Your task to perform on an android device: Do I have any events this weekend? Image 0: 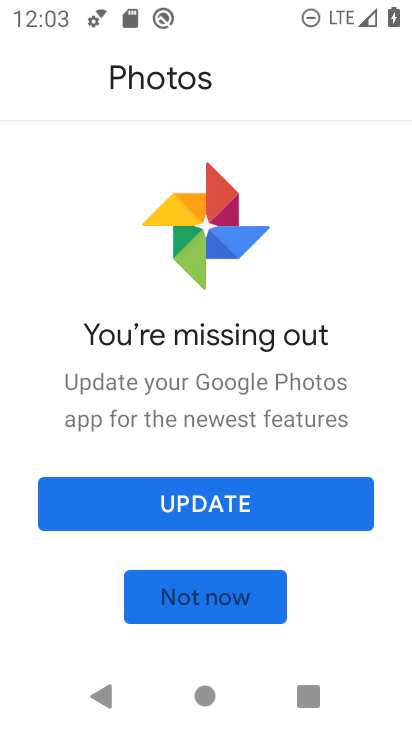
Step 0: press home button
Your task to perform on an android device: Do I have any events this weekend? Image 1: 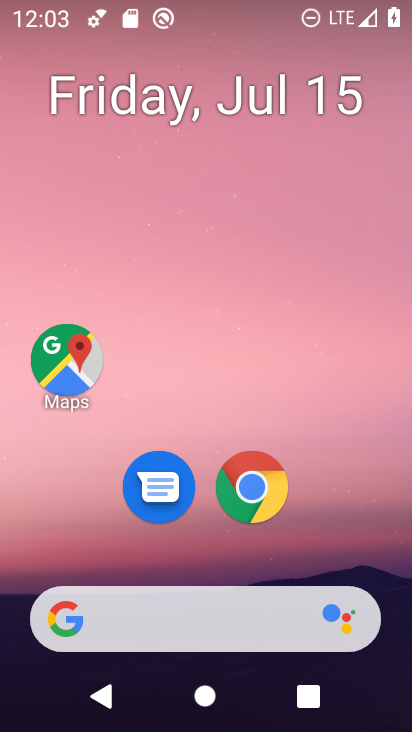
Step 1: drag from (219, 605) to (194, 116)
Your task to perform on an android device: Do I have any events this weekend? Image 2: 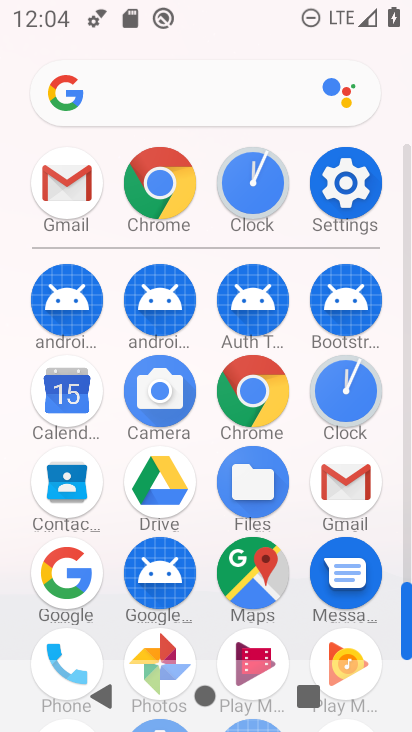
Step 2: drag from (246, 533) to (242, 347)
Your task to perform on an android device: Do I have any events this weekend? Image 3: 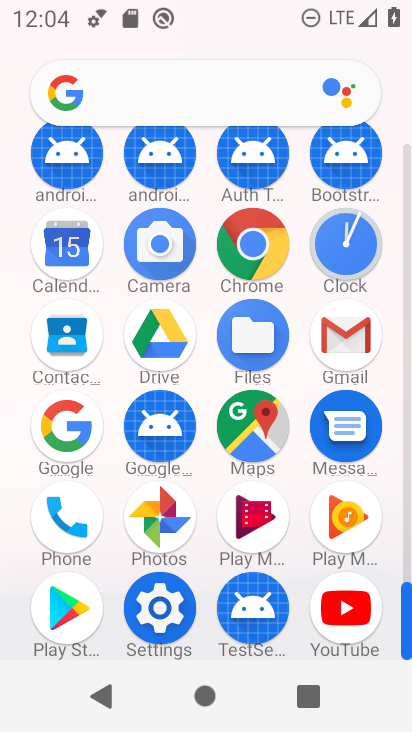
Step 3: click (80, 265)
Your task to perform on an android device: Do I have any events this weekend? Image 4: 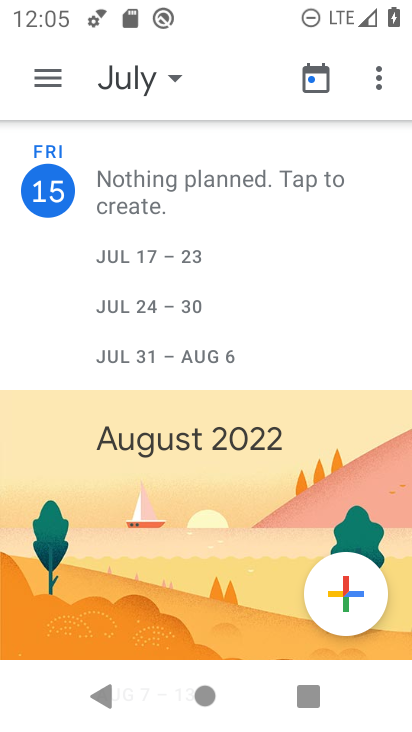
Step 4: click (171, 82)
Your task to perform on an android device: Do I have any events this weekend? Image 5: 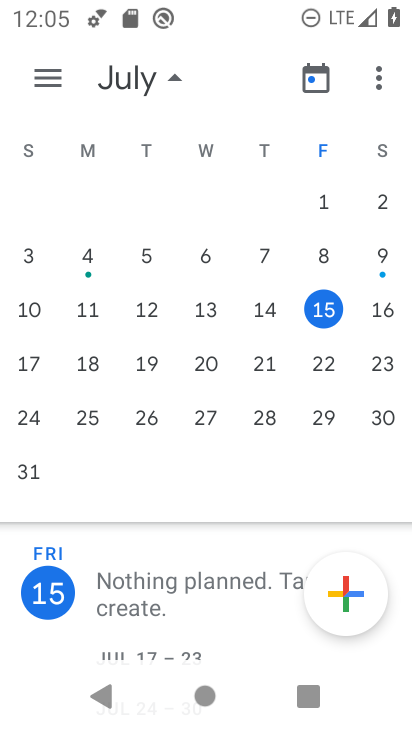
Step 5: click (323, 311)
Your task to perform on an android device: Do I have any events this weekend? Image 6: 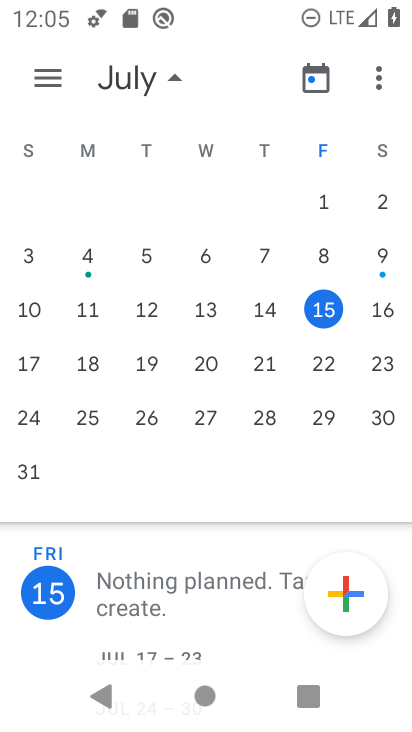
Step 6: task complete